Your task to perform on an android device: check storage Image 0: 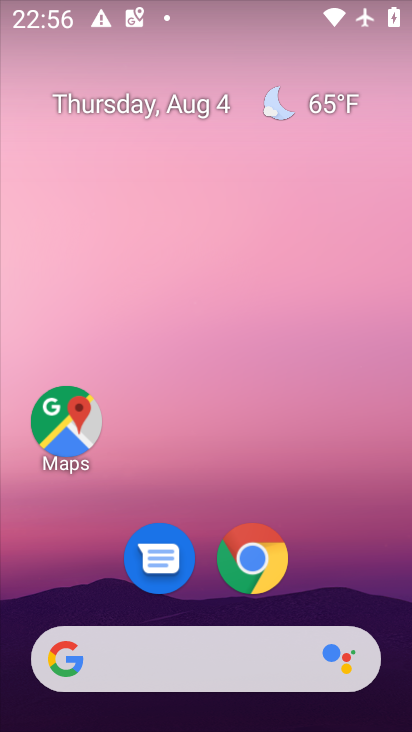
Step 0: drag from (348, 549) to (303, 105)
Your task to perform on an android device: check storage Image 1: 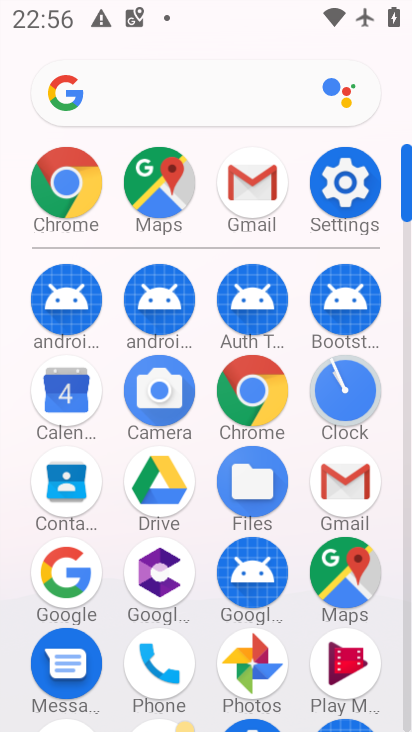
Step 1: click (351, 183)
Your task to perform on an android device: check storage Image 2: 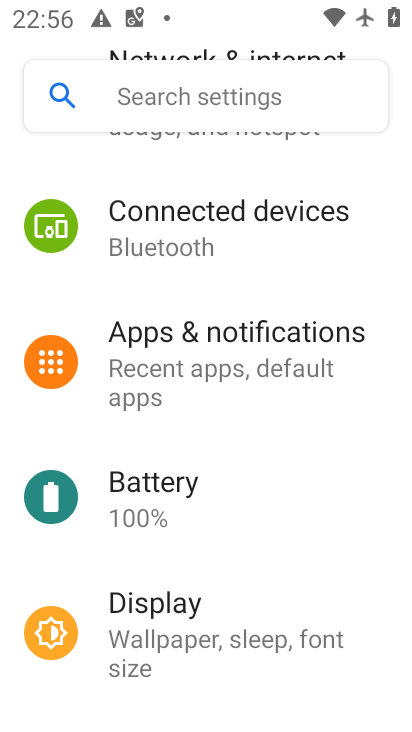
Step 2: drag from (260, 584) to (286, 203)
Your task to perform on an android device: check storage Image 3: 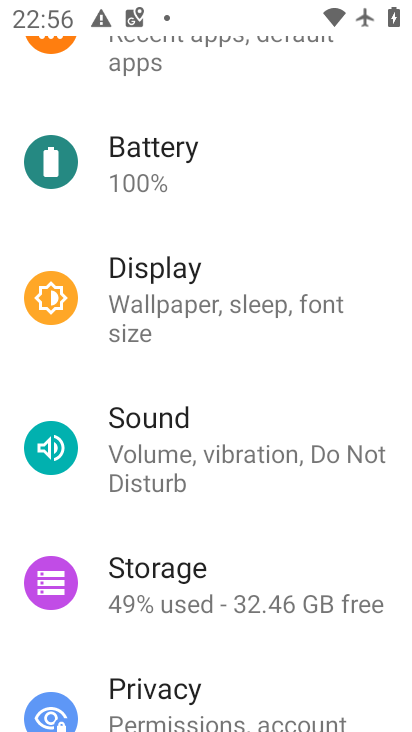
Step 3: click (179, 583)
Your task to perform on an android device: check storage Image 4: 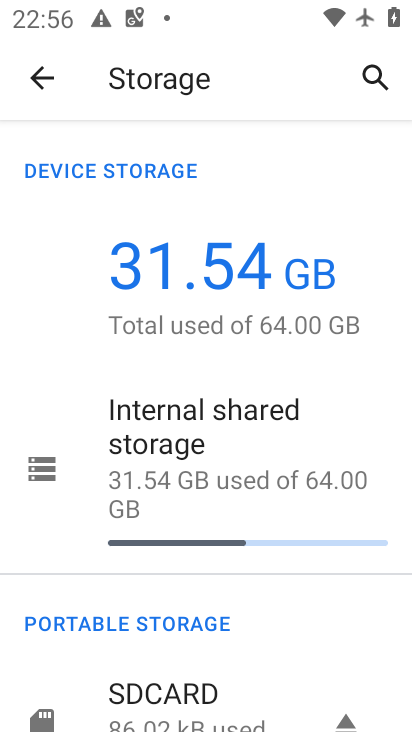
Step 4: task complete